Your task to perform on an android device: stop showing notifications on the lock screen Image 0: 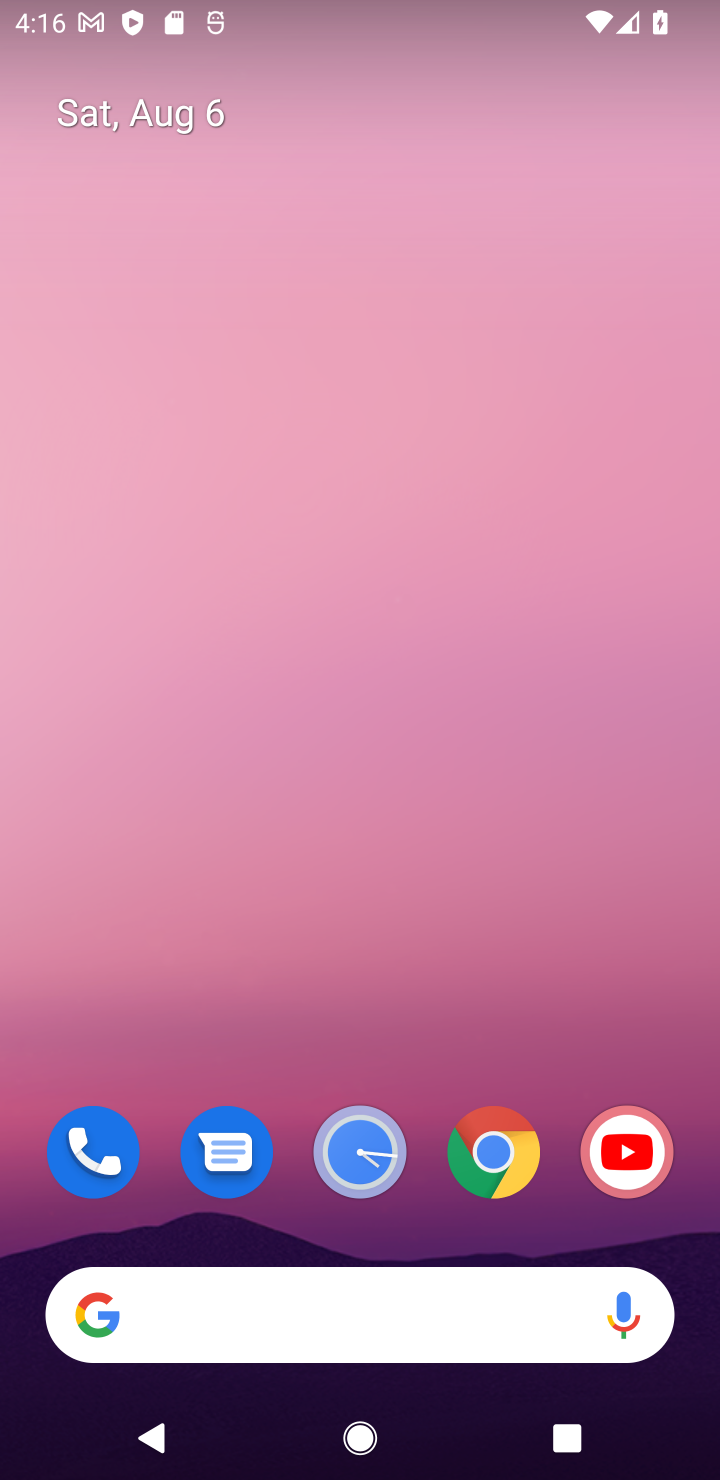
Step 0: press home button
Your task to perform on an android device: stop showing notifications on the lock screen Image 1: 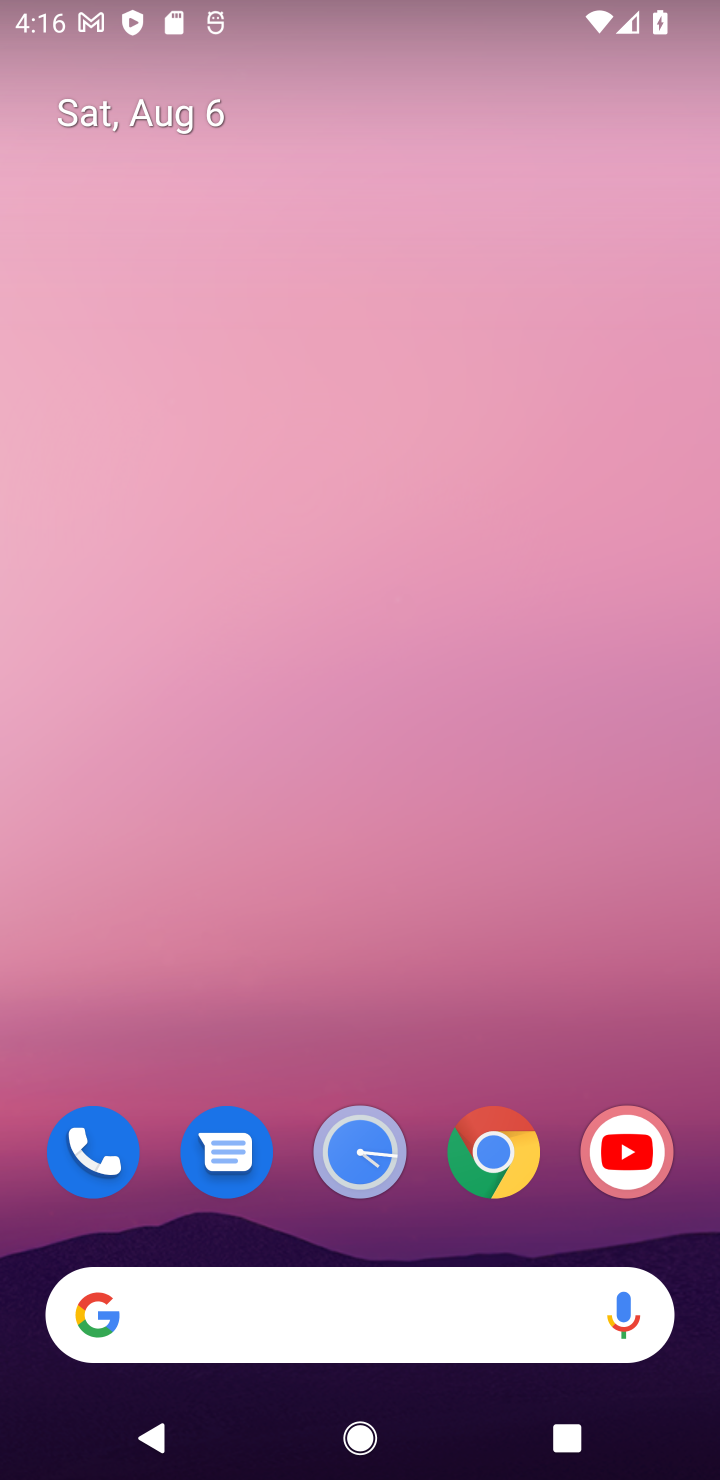
Step 1: drag from (575, 1187) to (517, 15)
Your task to perform on an android device: stop showing notifications on the lock screen Image 2: 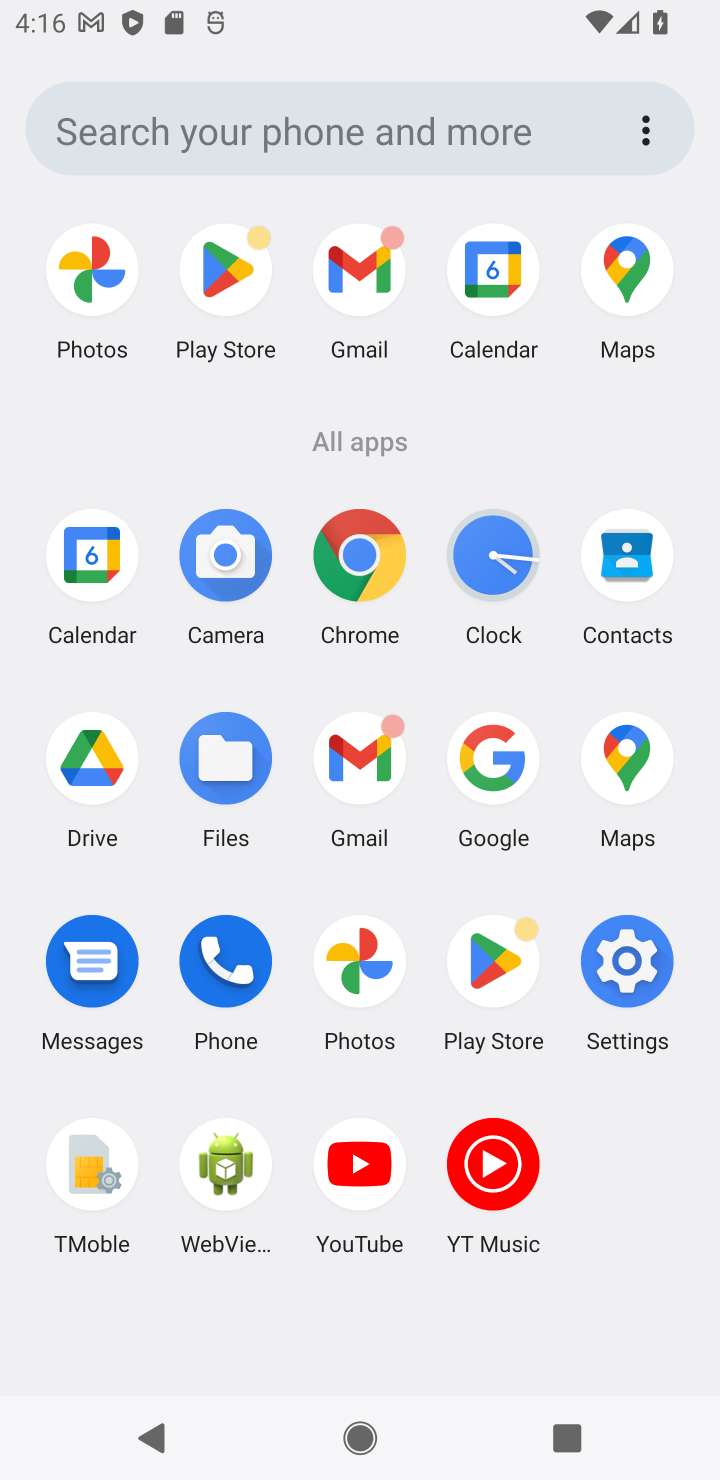
Step 2: click (640, 973)
Your task to perform on an android device: stop showing notifications on the lock screen Image 3: 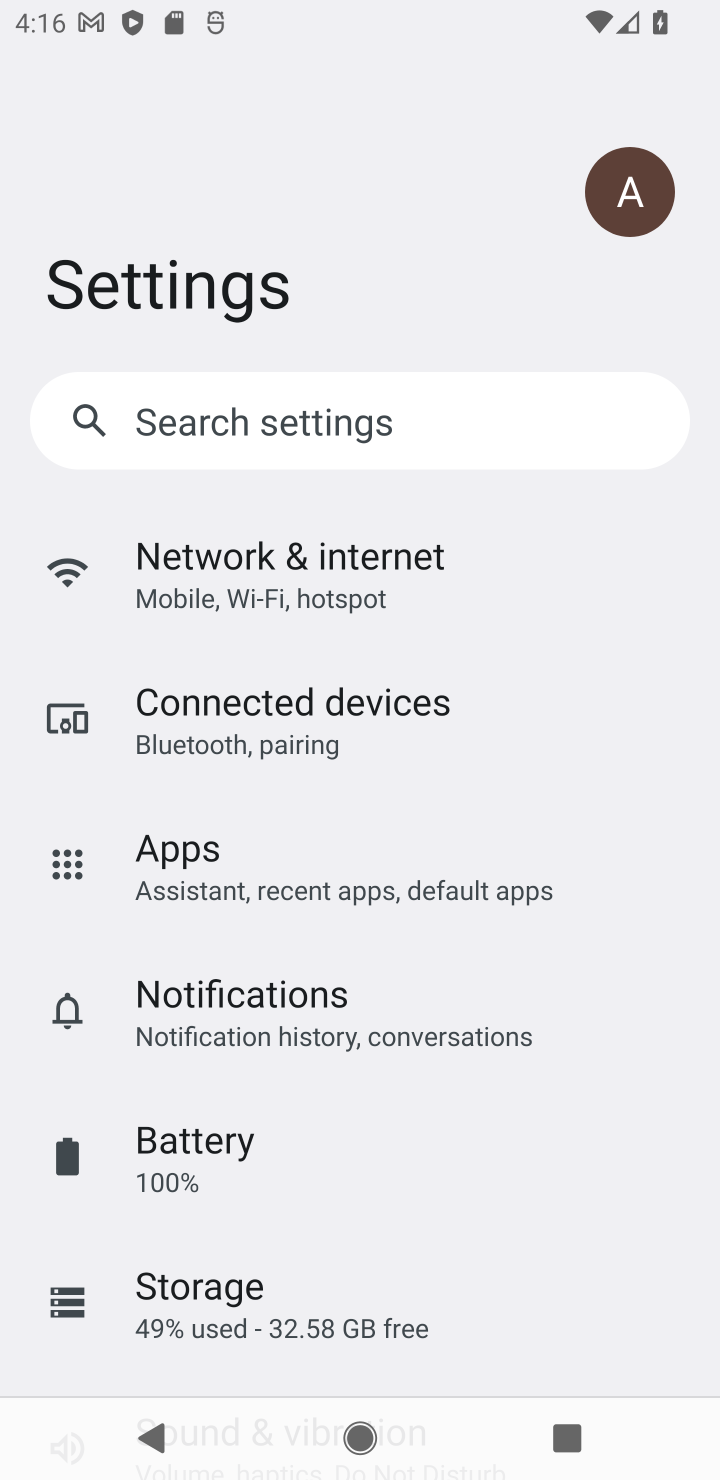
Step 3: click (348, 996)
Your task to perform on an android device: stop showing notifications on the lock screen Image 4: 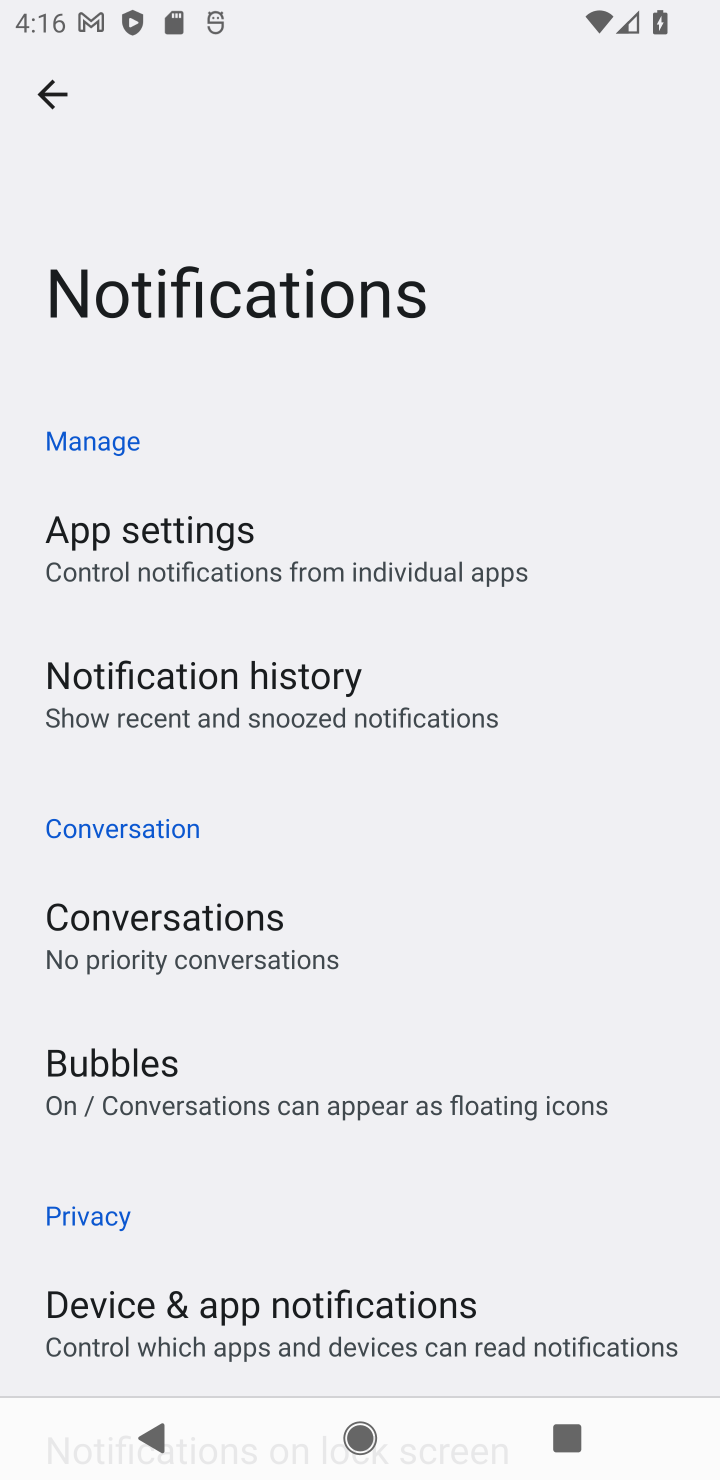
Step 4: click (454, 1314)
Your task to perform on an android device: stop showing notifications on the lock screen Image 5: 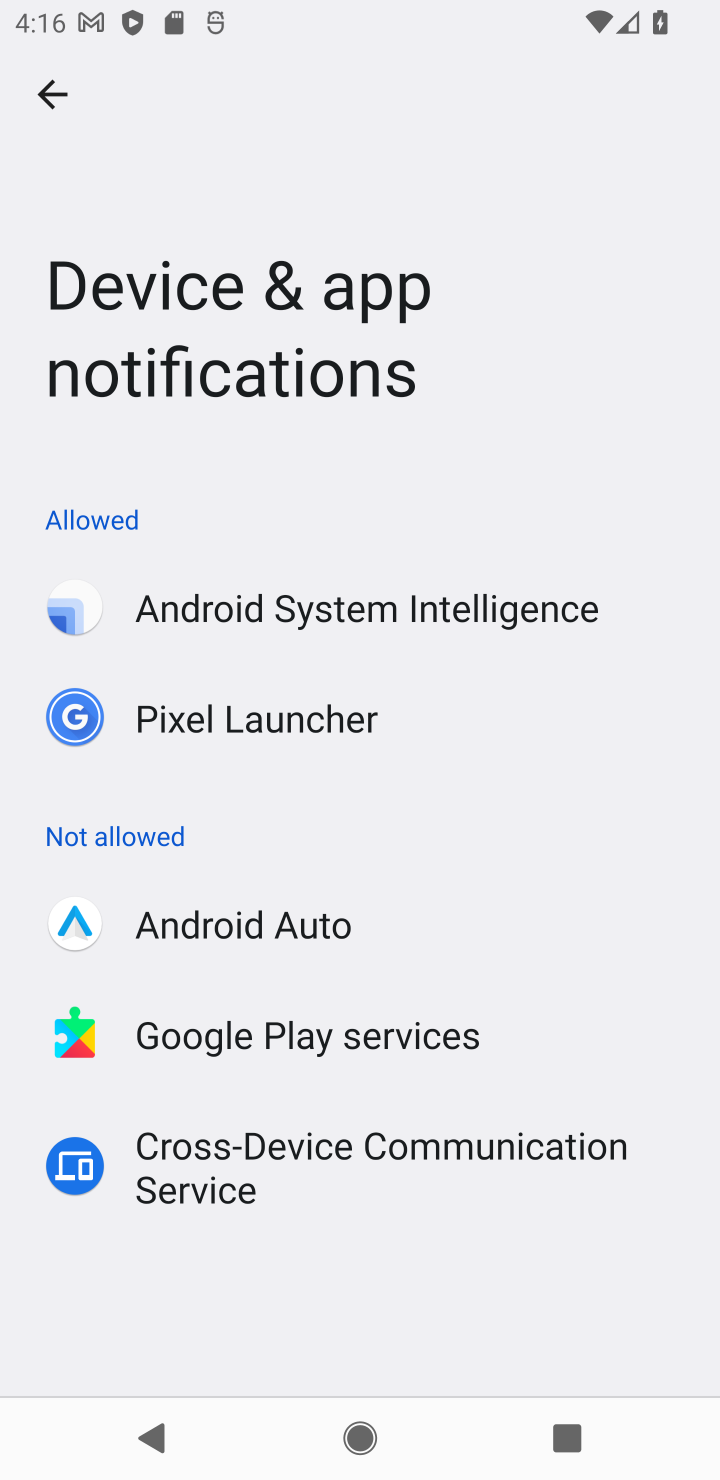
Step 5: click (54, 78)
Your task to perform on an android device: stop showing notifications on the lock screen Image 6: 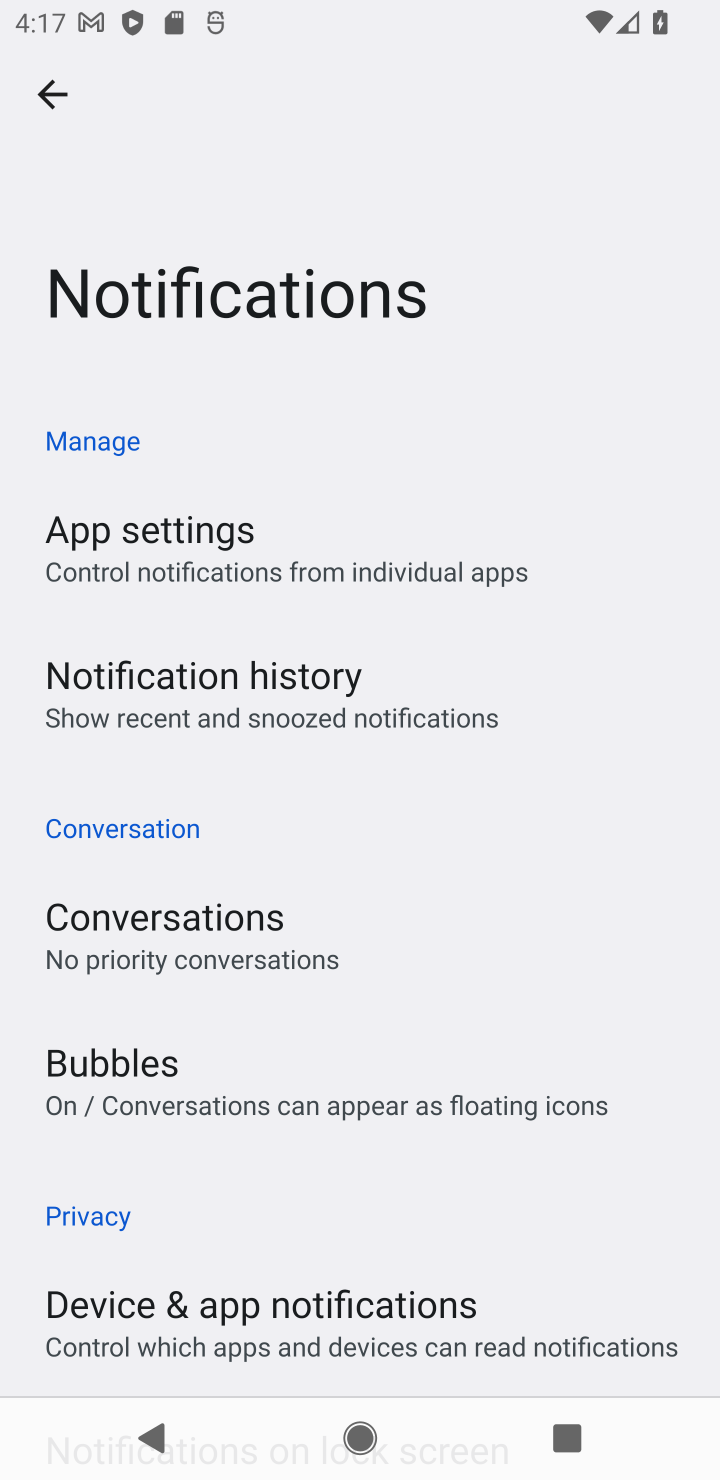
Step 6: drag from (449, 1210) to (488, 303)
Your task to perform on an android device: stop showing notifications on the lock screen Image 7: 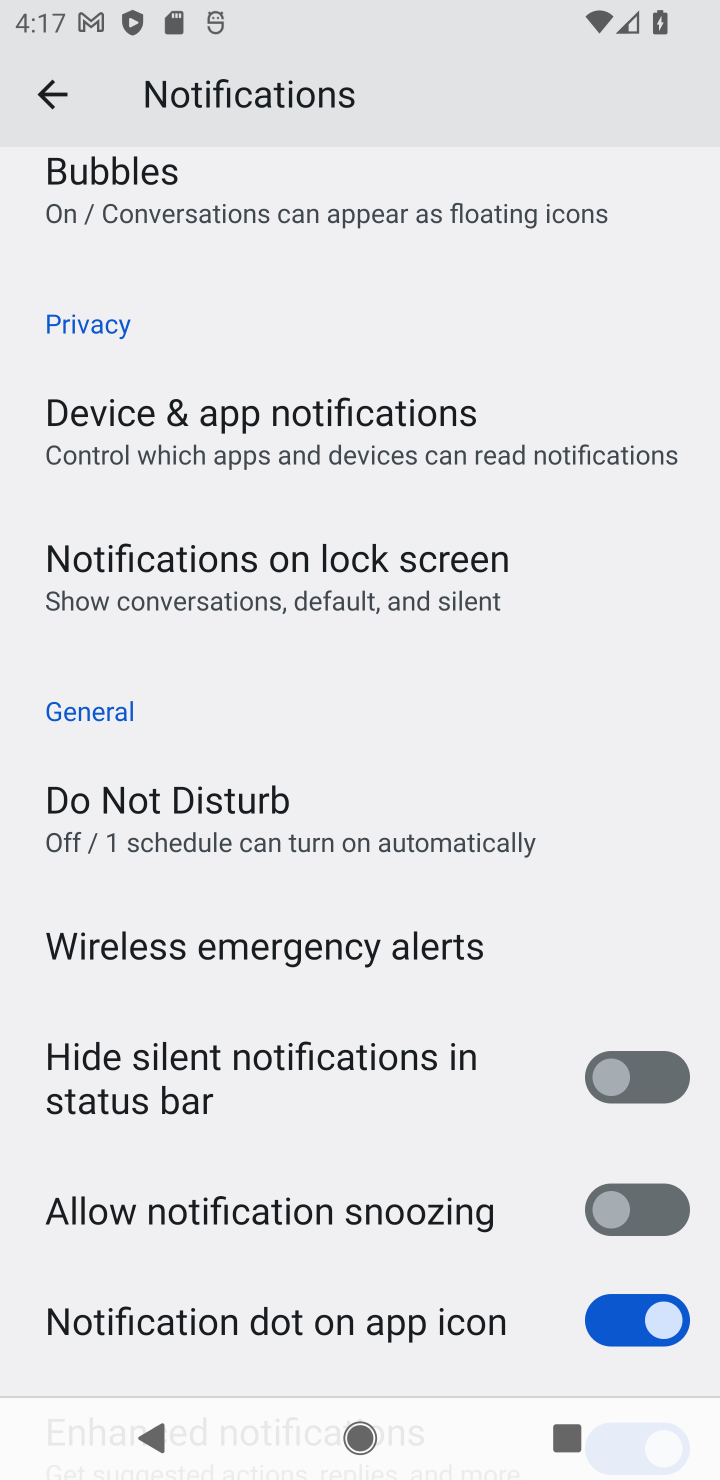
Step 7: drag from (334, 1337) to (445, 721)
Your task to perform on an android device: stop showing notifications on the lock screen Image 8: 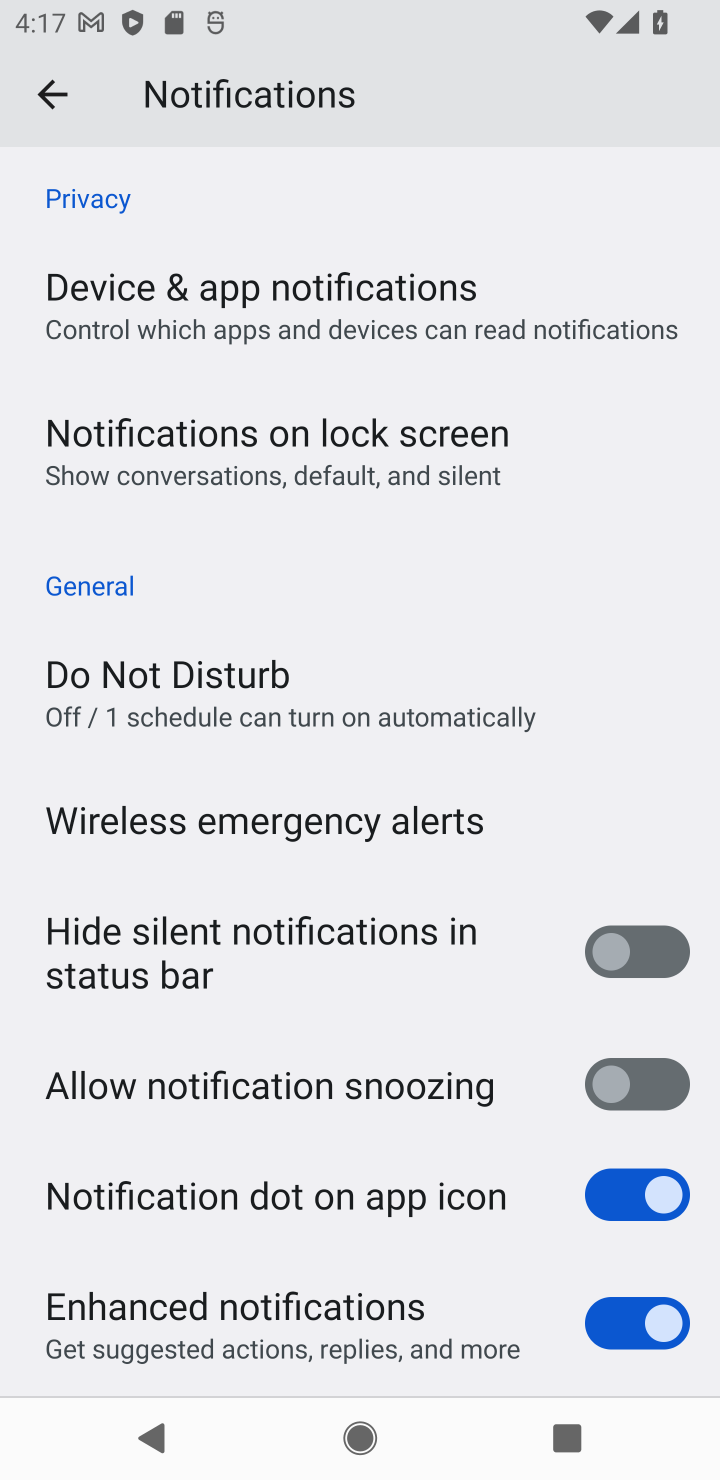
Step 8: click (376, 468)
Your task to perform on an android device: stop showing notifications on the lock screen Image 9: 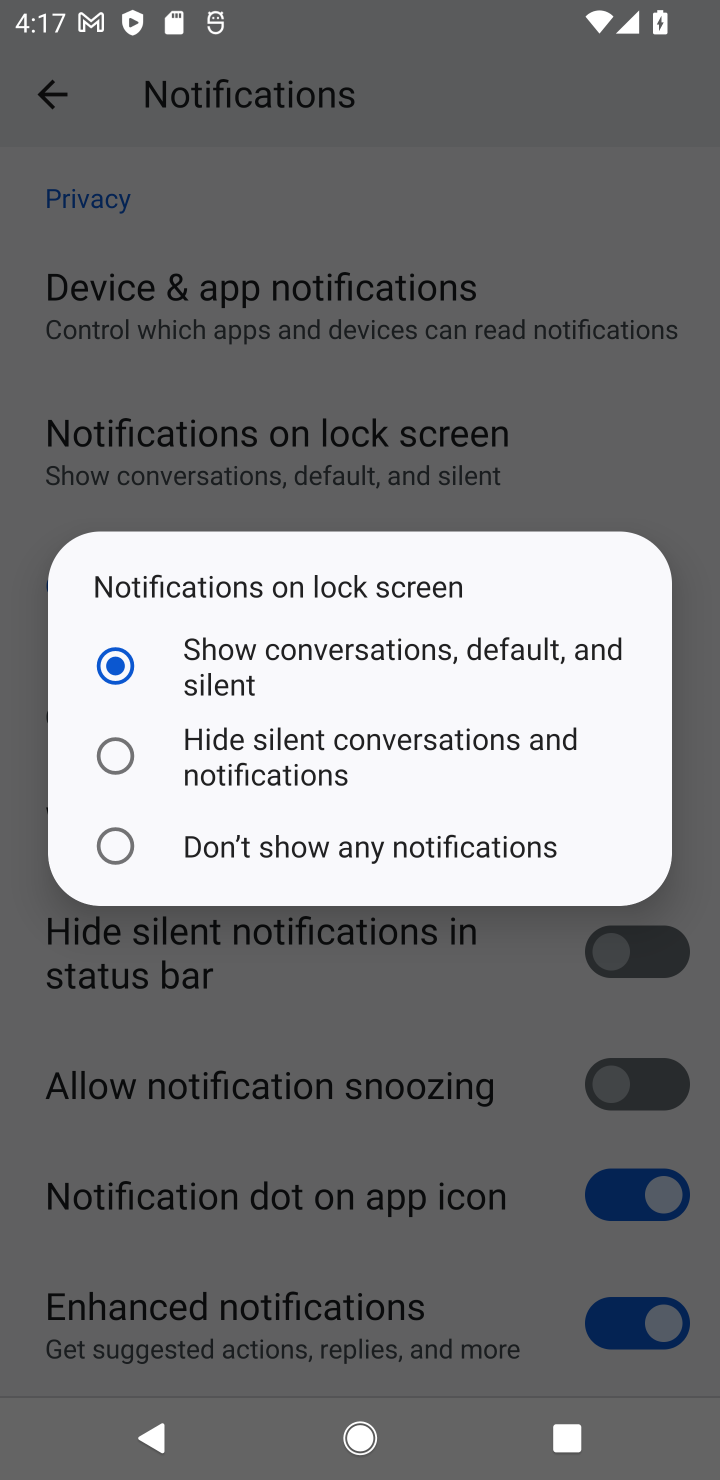
Step 9: click (478, 857)
Your task to perform on an android device: stop showing notifications on the lock screen Image 10: 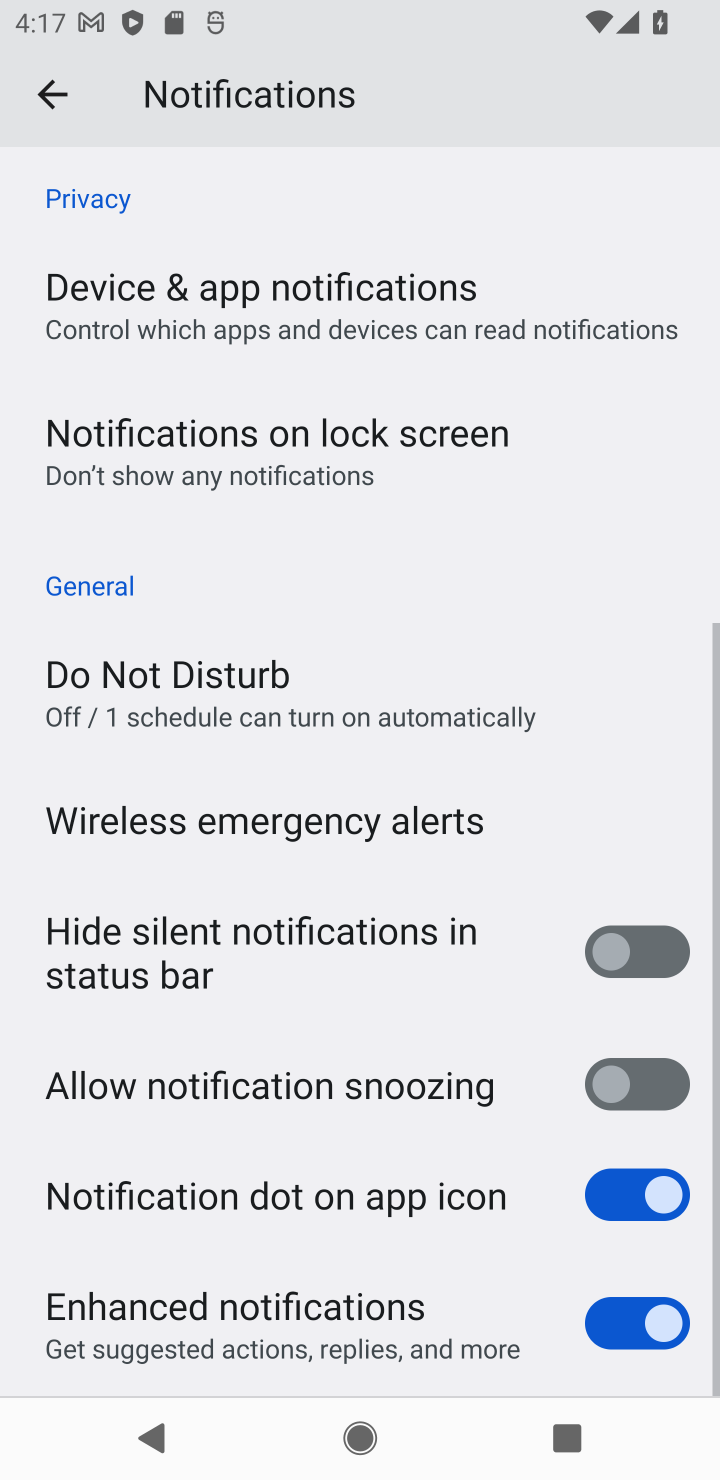
Step 10: task complete